Your task to perform on an android device: change the clock display to show seconds Image 0: 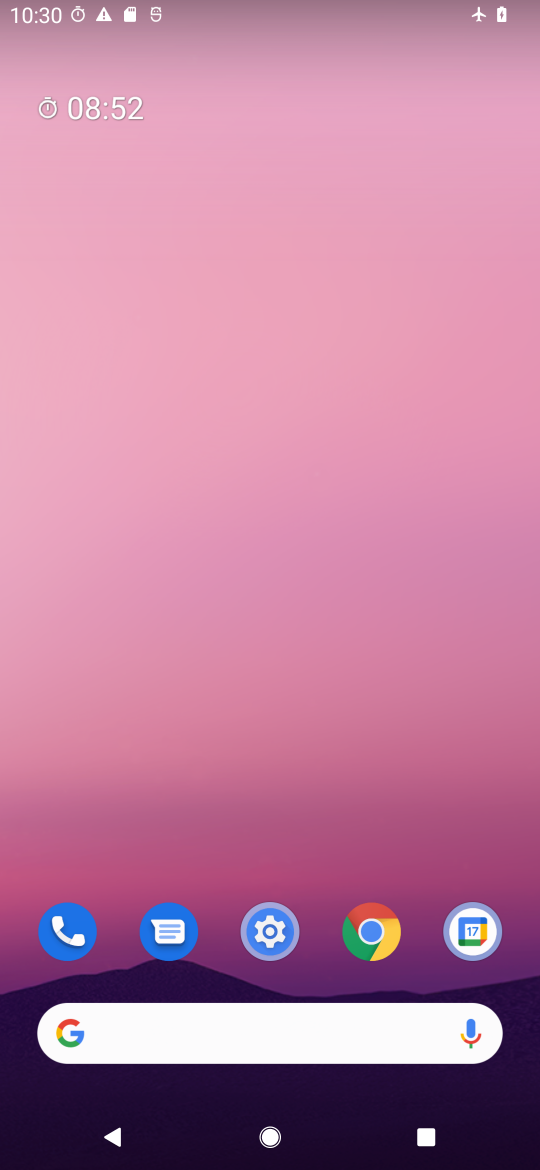
Step 0: click (361, 922)
Your task to perform on an android device: change the clock display to show seconds Image 1: 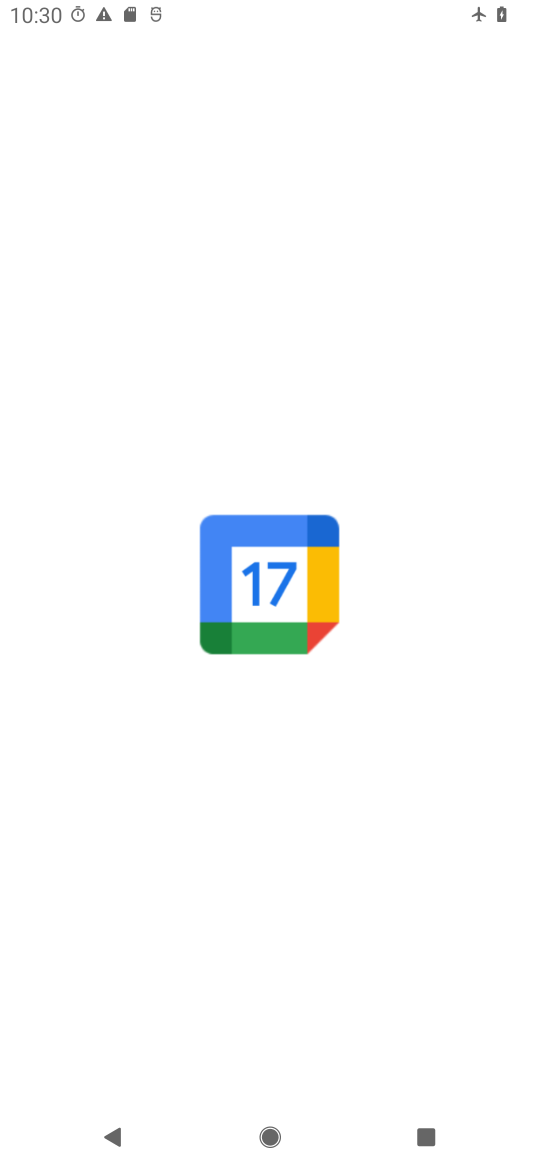
Step 1: press home button
Your task to perform on an android device: change the clock display to show seconds Image 2: 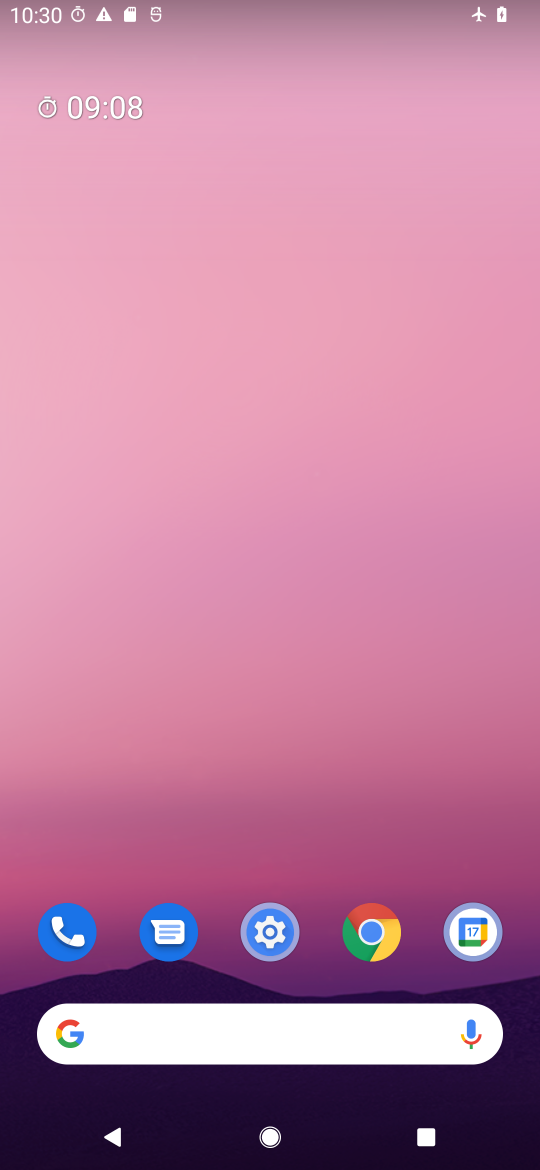
Step 2: drag from (318, 791) to (308, 143)
Your task to perform on an android device: change the clock display to show seconds Image 3: 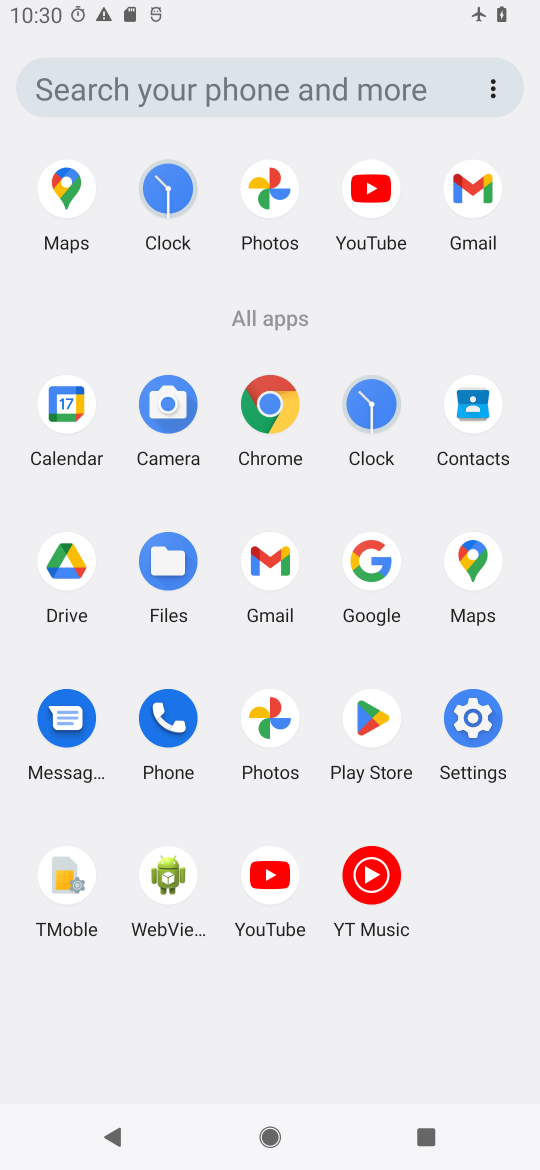
Step 3: click (370, 397)
Your task to perform on an android device: change the clock display to show seconds Image 4: 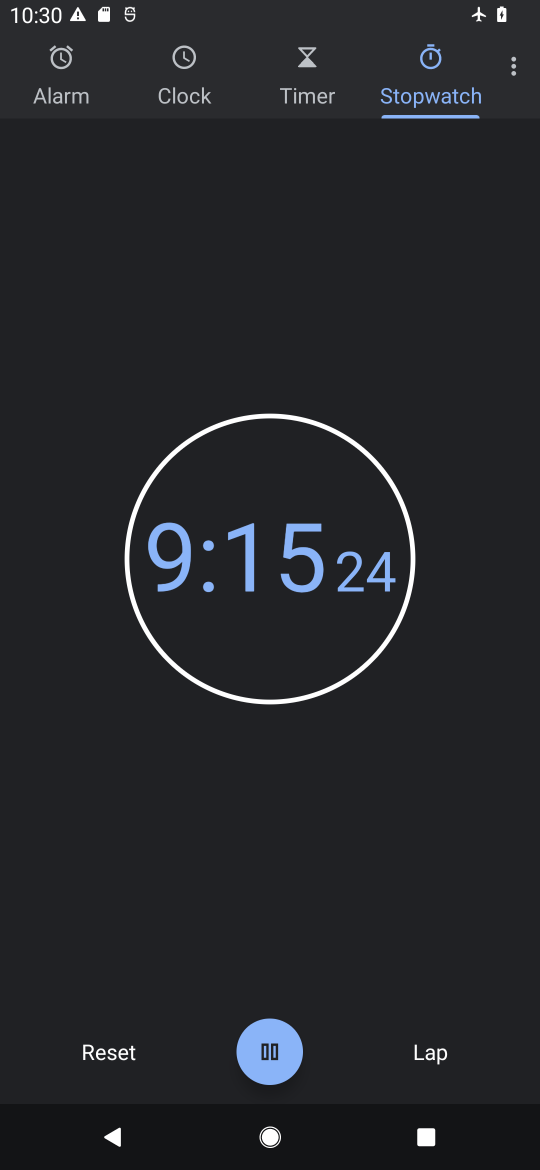
Step 4: click (505, 66)
Your task to perform on an android device: change the clock display to show seconds Image 5: 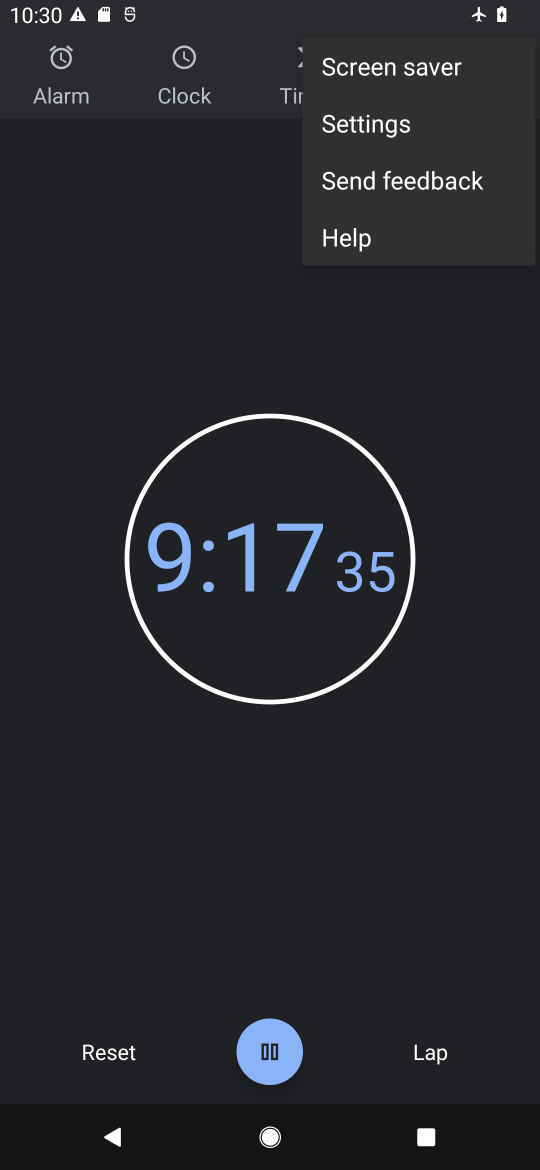
Step 5: click (423, 117)
Your task to perform on an android device: change the clock display to show seconds Image 6: 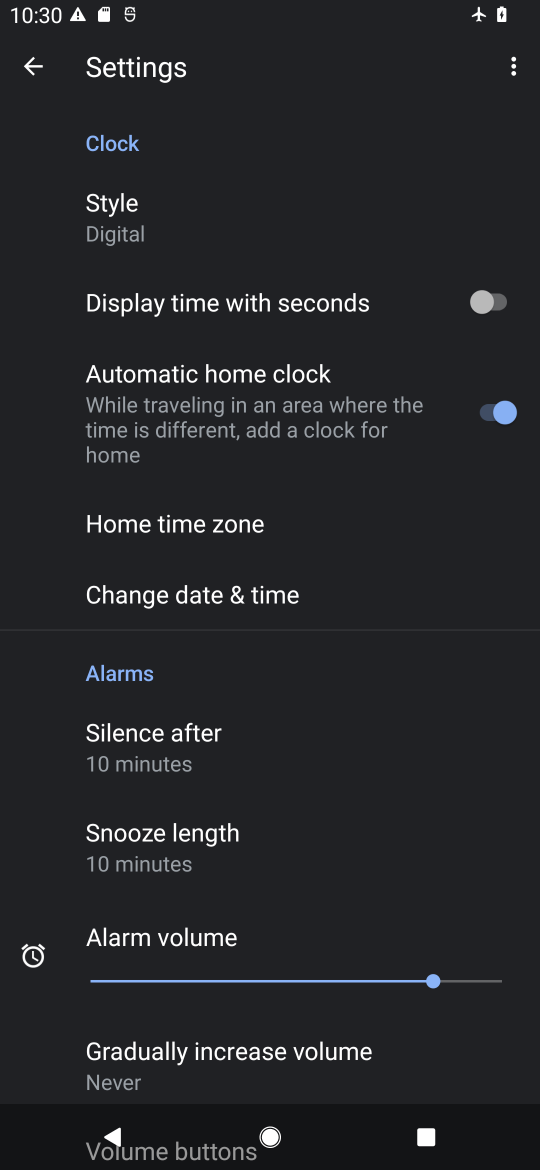
Step 6: click (487, 296)
Your task to perform on an android device: change the clock display to show seconds Image 7: 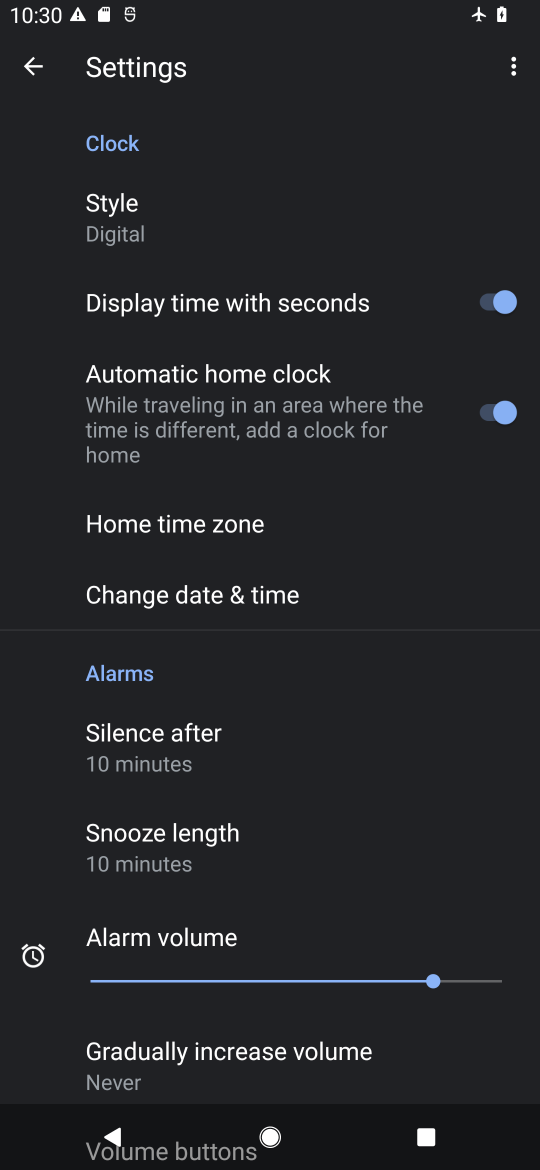
Step 7: task complete